Your task to perform on an android device: Search for flights from NYC to Buenos aires Image 0: 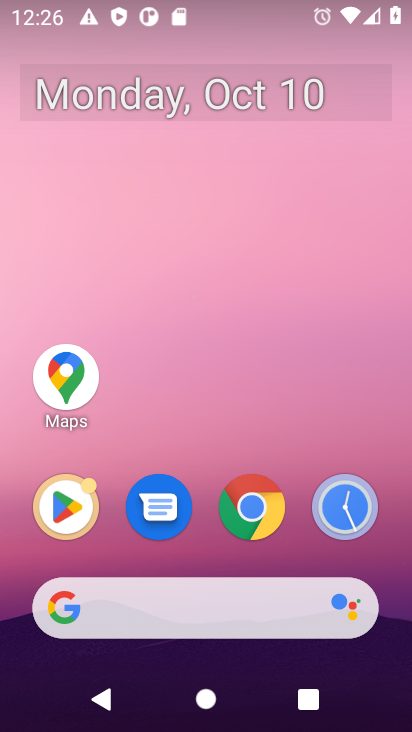
Step 0: press home button
Your task to perform on an android device: Search for flights from NYC to Buenos aires Image 1: 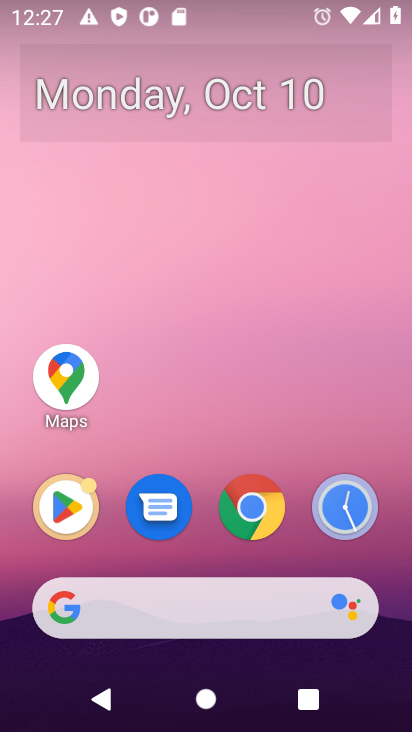
Step 1: click (221, 608)
Your task to perform on an android device: Search for flights from NYC to Buenos aires Image 2: 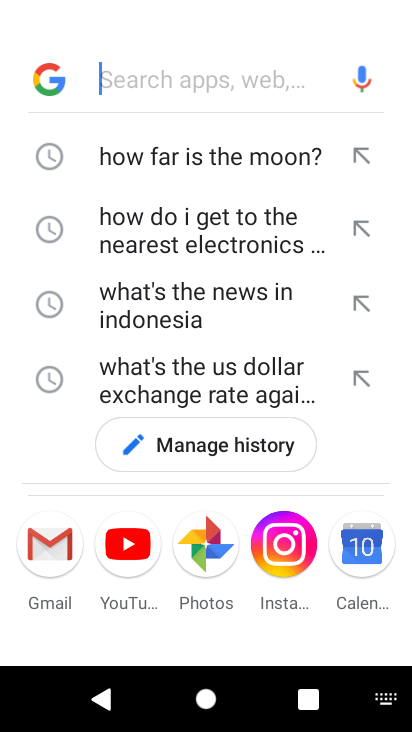
Step 2: type "flights from NYC to Buenos aires"
Your task to perform on an android device: Search for flights from NYC to Buenos aires Image 3: 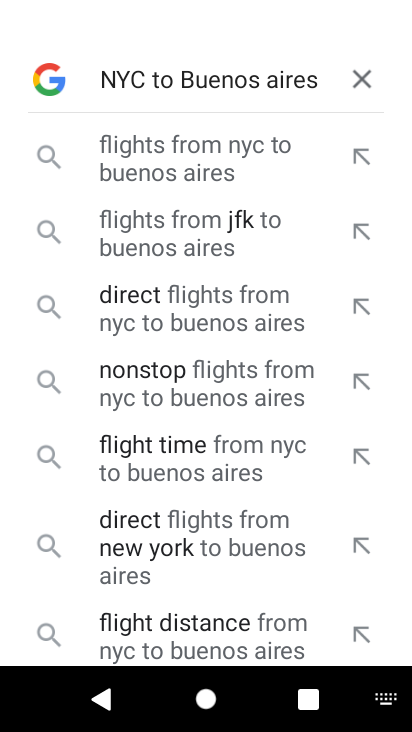
Step 3: press enter
Your task to perform on an android device: Search for flights from NYC to Buenos aires Image 4: 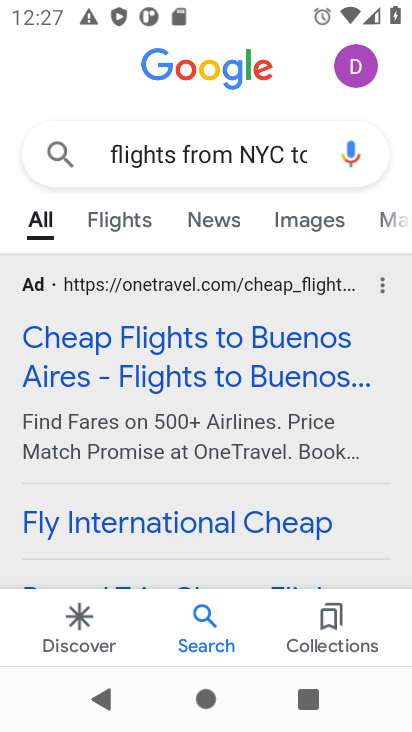
Step 4: task complete